Your task to perform on an android device: Open the stopwatch Image 0: 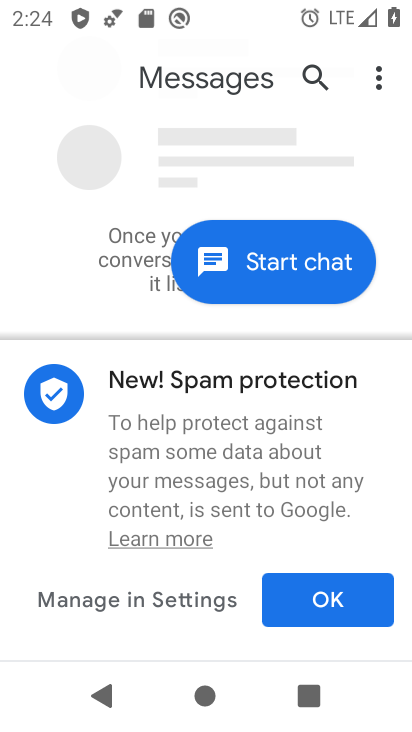
Step 0: press home button
Your task to perform on an android device: Open the stopwatch Image 1: 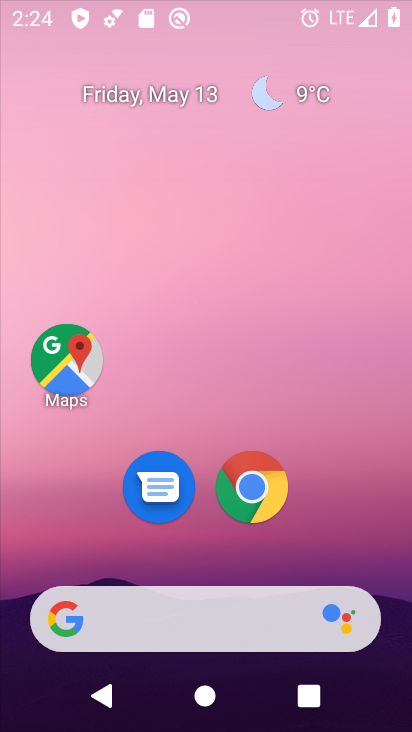
Step 1: drag from (206, 548) to (260, 99)
Your task to perform on an android device: Open the stopwatch Image 2: 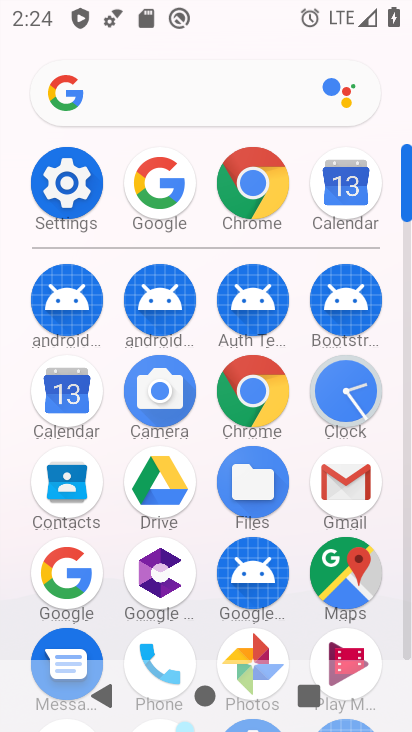
Step 2: click (336, 394)
Your task to perform on an android device: Open the stopwatch Image 3: 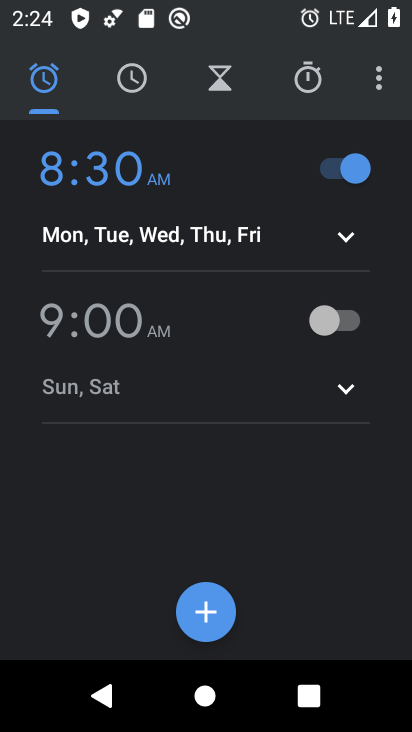
Step 3: click (313, 85)
Your task to perform on an android device: Open the stopwatch Image 4: 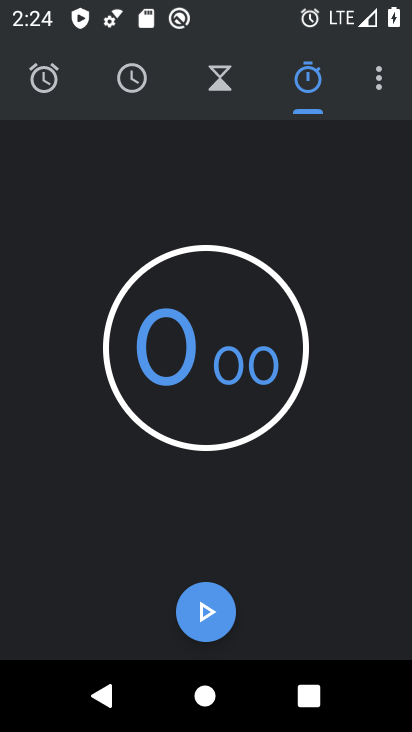
Step 4: click (217, 611)
Your task to perform on an android device: Open the stopwatch Image 5: 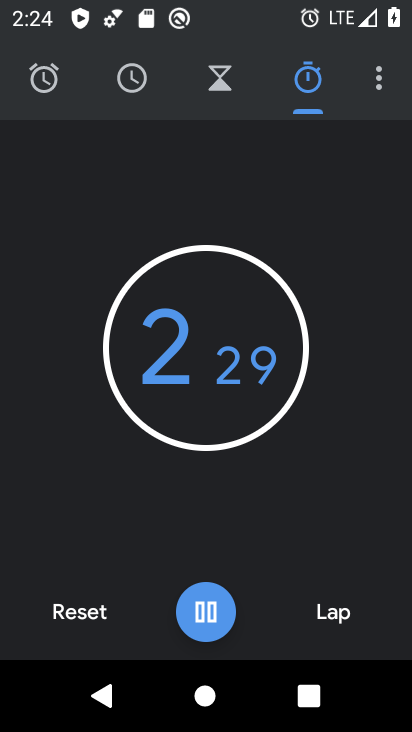
Step 5: task complete